Your task to perform on an android device: turn on sleep mode Image 0: 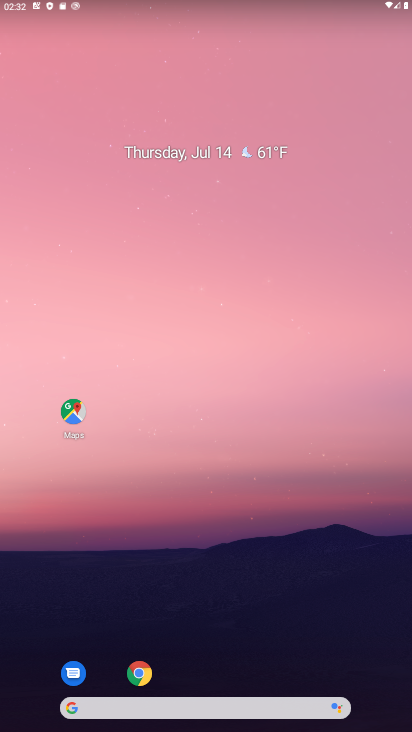
Step 0: drag from (289, 655) to (241, 151)
Your task to perform on an android device: turn on sleep mode Image 1: 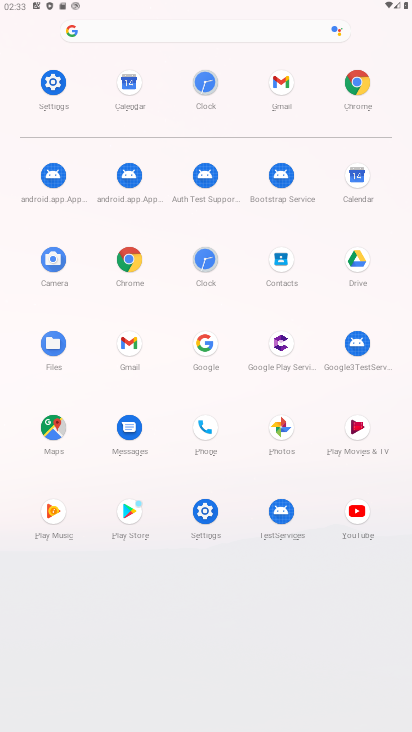
Step 1: click (41, 92)
Your task to perform on an android device: turn on sleep mode Image 2: 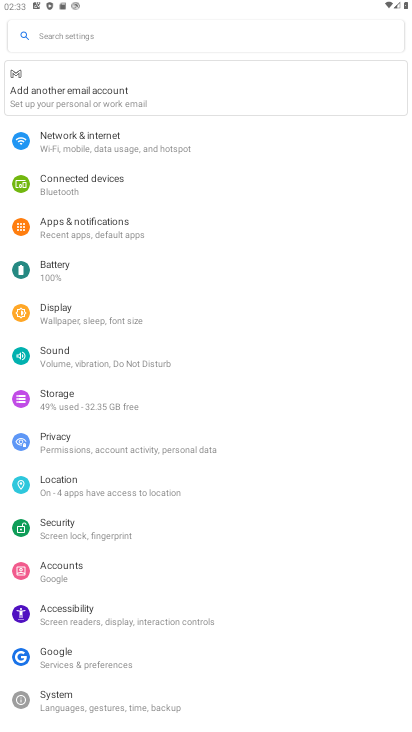
Step 2: click (88, 319)
Your task to perform on an android device: turn on sleep mode Image 3: 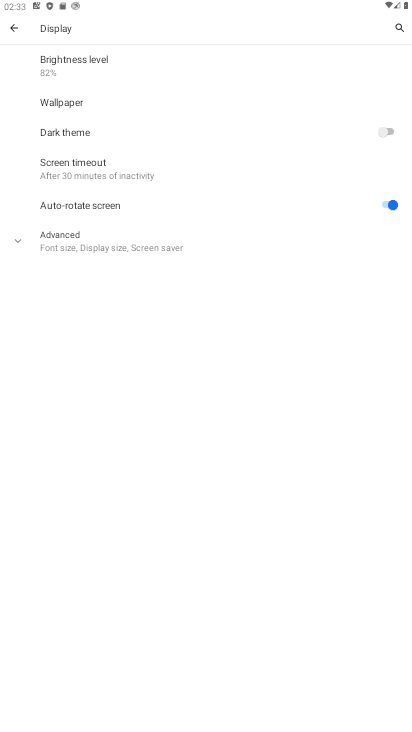
Step 3: click (139, 236)
Your task to perform on an android device: turn on sleep mode Image 4: 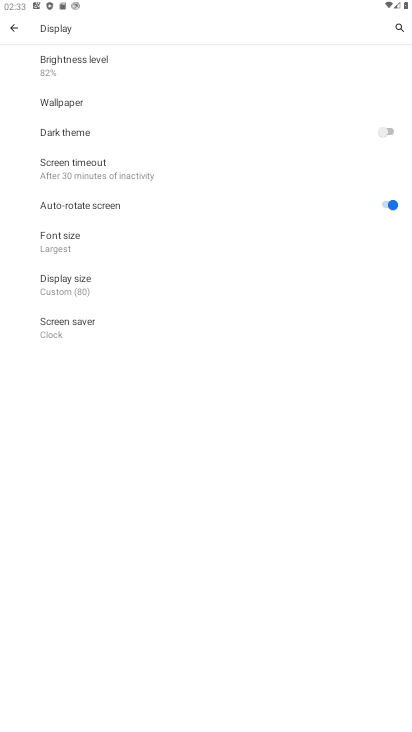
Step 4: click (143, 163)
Your task to perform on an android device: turn on sleep mode Image 5: 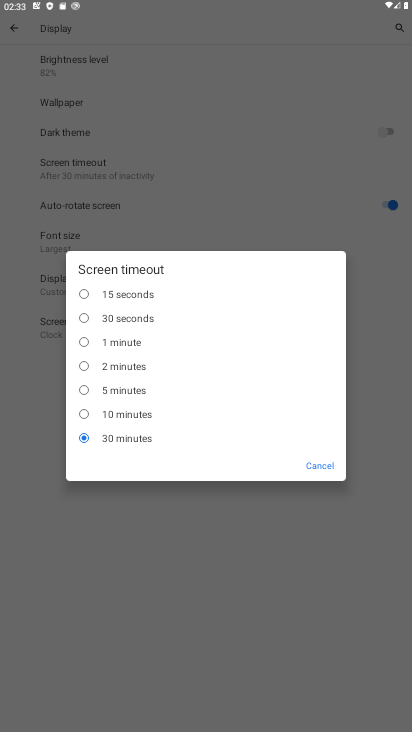
Step 5: click (134, 308)
Your task to perform on an android device: turn on sleep mode Image 6: 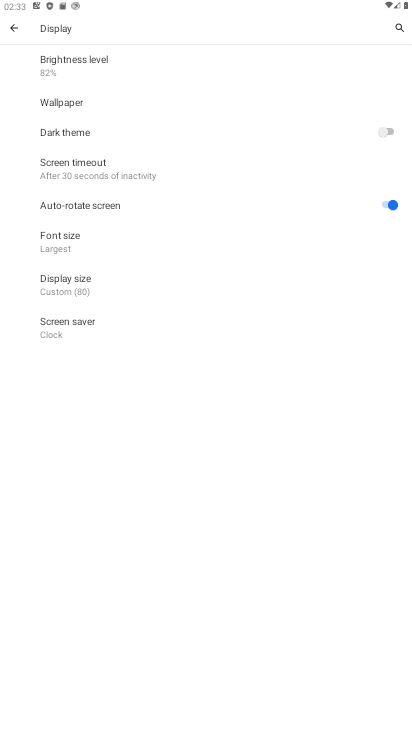
Step 6: task complete